Your task to perform on an android device: Is it going to rain today? Image 0: 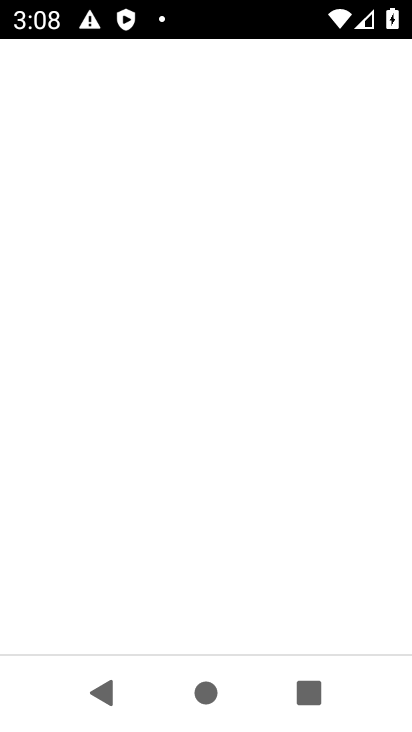
Step 0: press home button
Your task to perform on an android device: Is it going to rain today? Image 1: 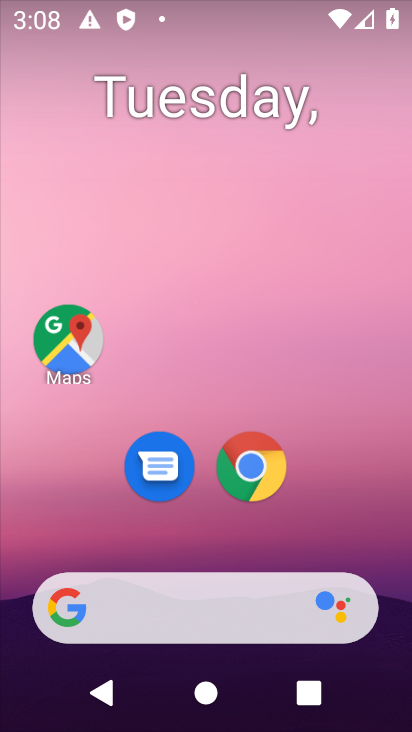
Step 1: click (239, 607)
Your task to perform on an android device: Is it going to rain today? Image 2: 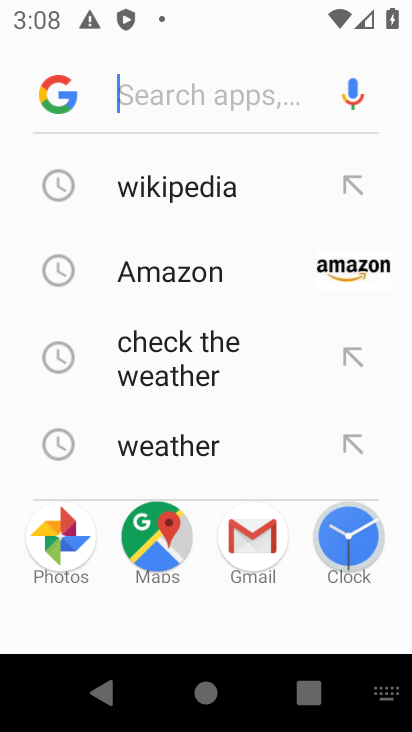
Step 2: click (186, 453)
Your task to perform on an android device: Is it going to rain today? Image 3: 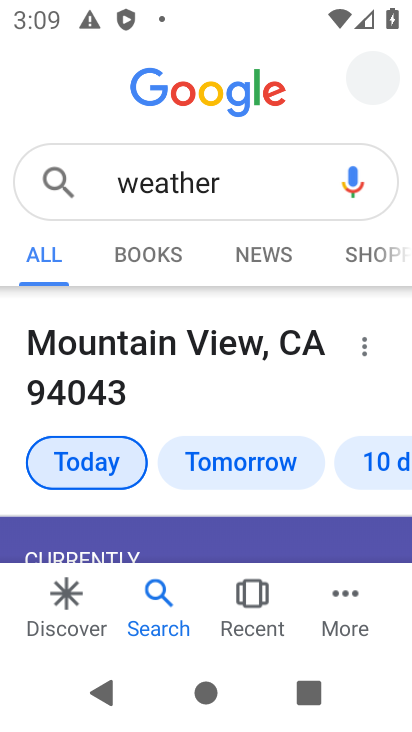
Step 3: task complete